Your task to perform on an android device: Turn off the flashlight Image 0: 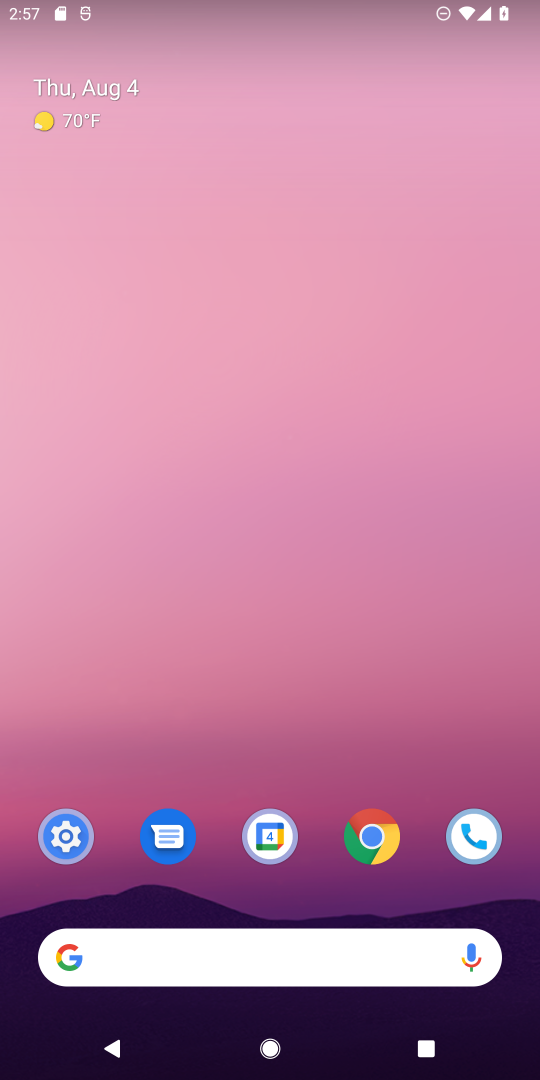
Step 0: drag from (314, 54) to (415, 609)
Your task to perform on an android device: Turn off the flashlight Image 1: 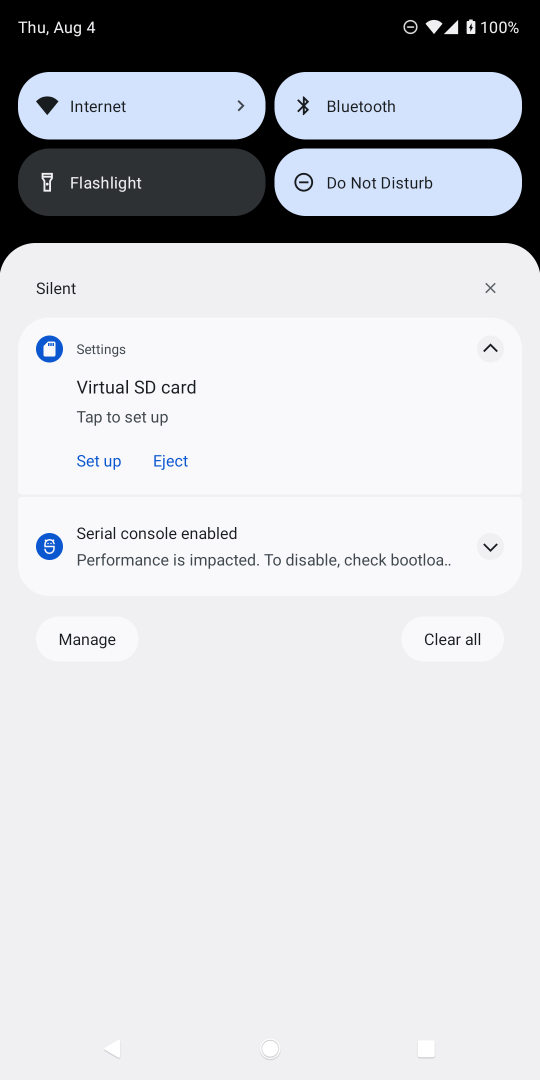
Step 1: task complete